Your task to perform on an android device: open app "Microsoft Outlook" Image 0: 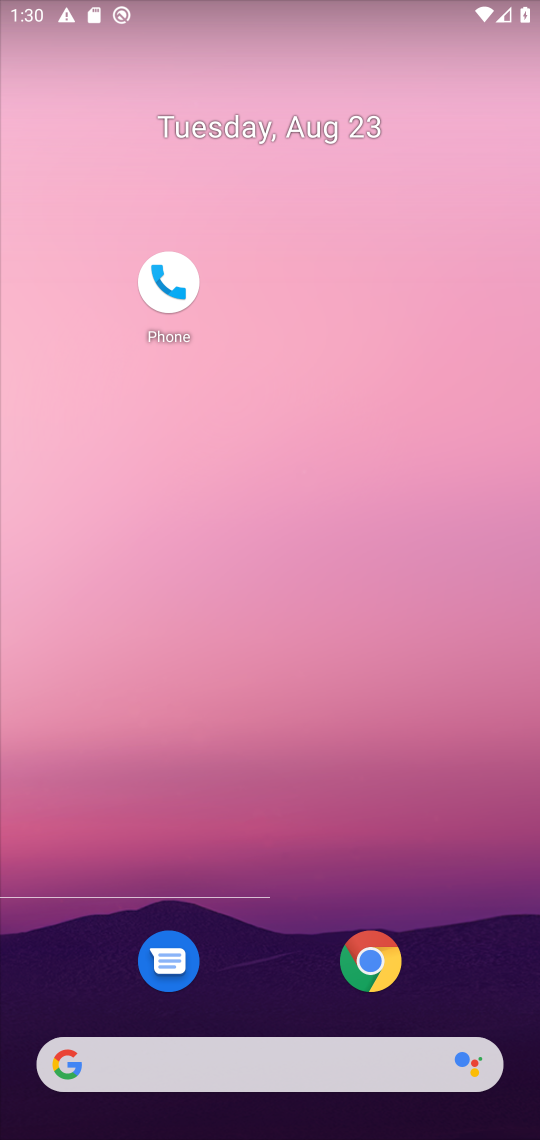
Step 0: drag from (281, 1005) to (238, 101)
Your task to perform on an android device: open app "Microsoft Outlook" Image 1: 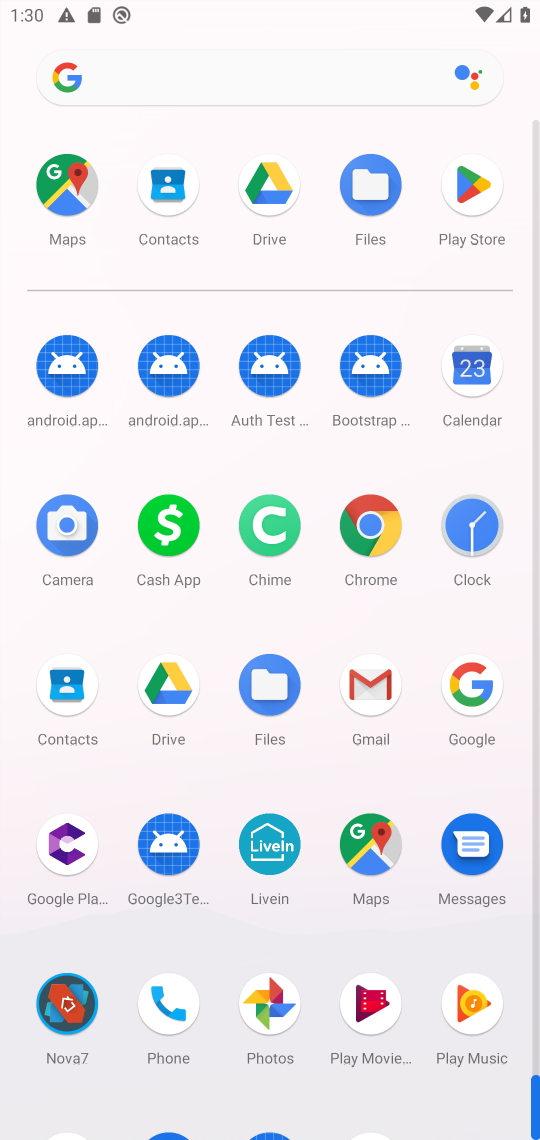
Step 1: click (449, 216)
Your task to perform on an android device: open app "Microsoft Outlook" Image 2: 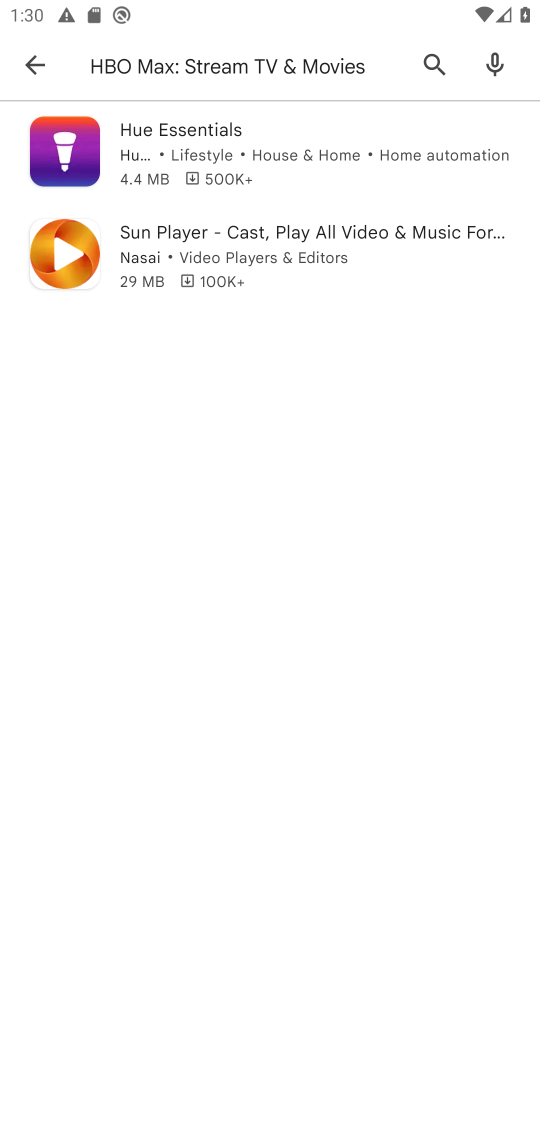
Step 2: click (440, 61)
Your task to perform on an android device: open app "Microsoft Outlook" Image 3: 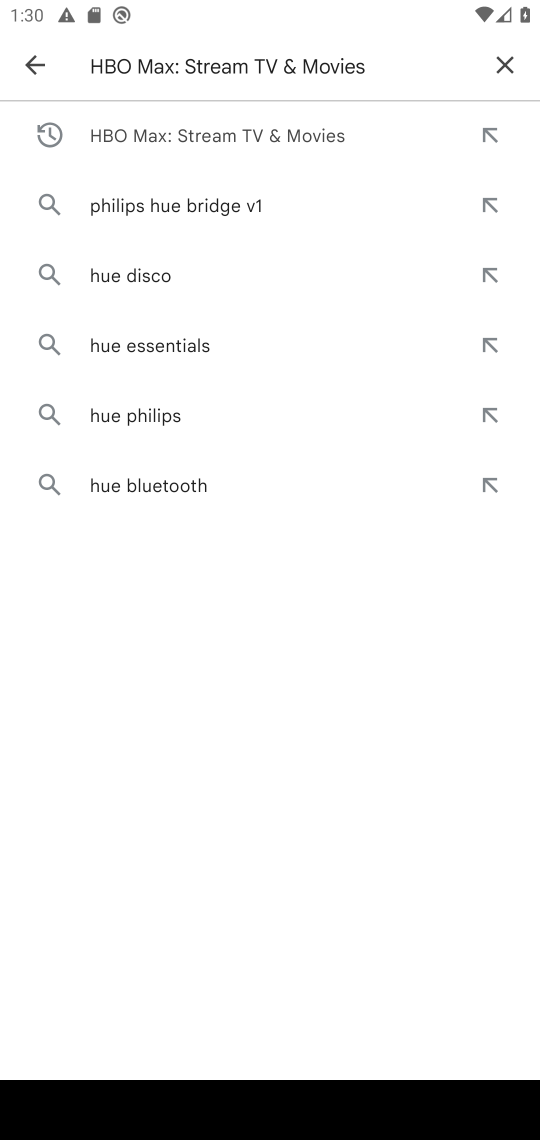
Step 3: click (499, 71)
Your task to perform on an android device: open app "Microsoft Outlook" Image 4: 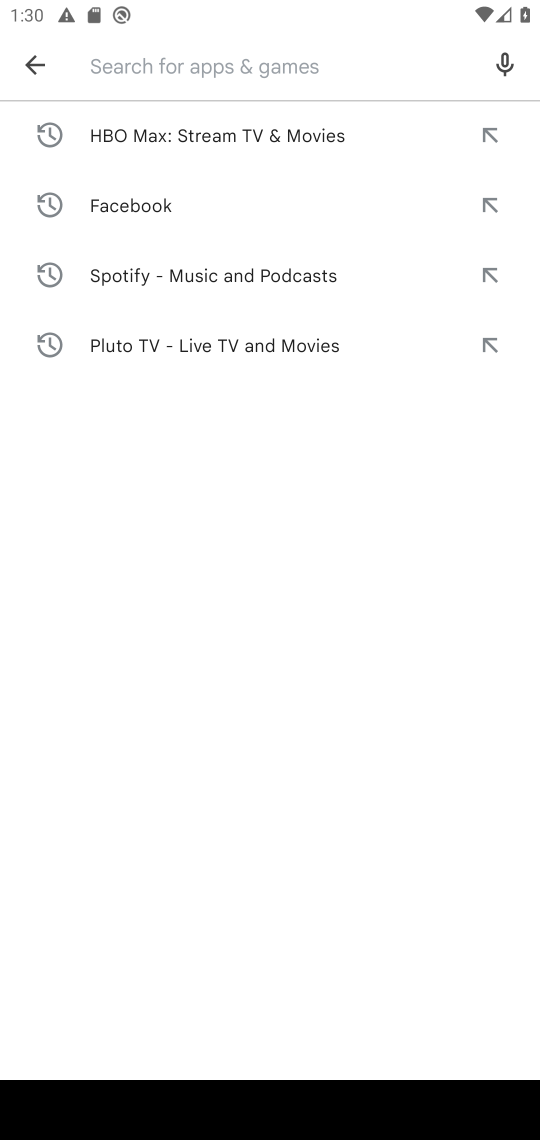
Step 4: type "microf"
Your task to perform on an android device: open app "Microsoft Outlook" Image 5: 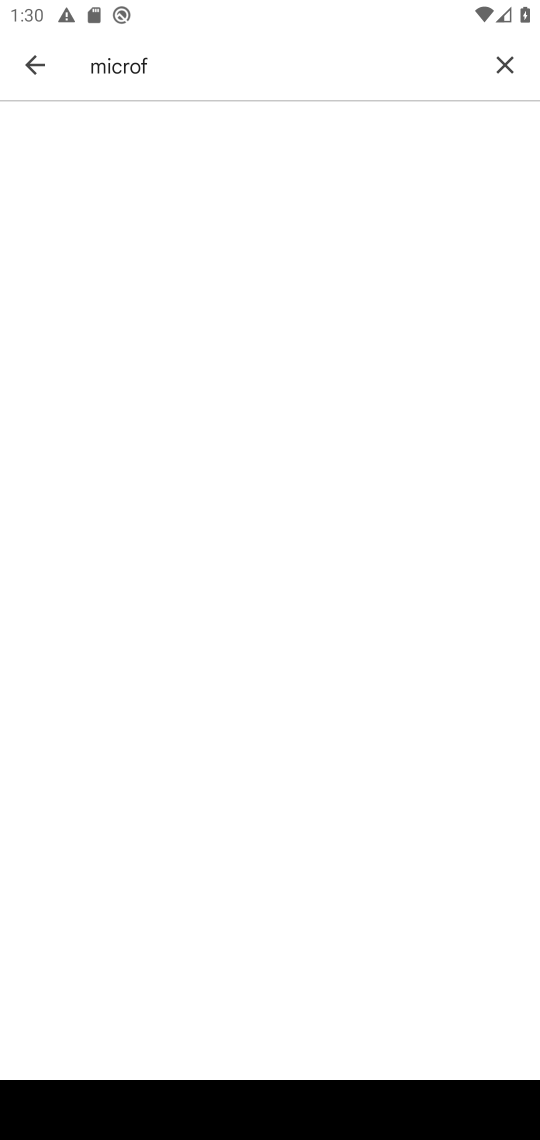
Step 5: task complete